Your task to perform on an android device: Clear the shopping cart on costco. Image 0: 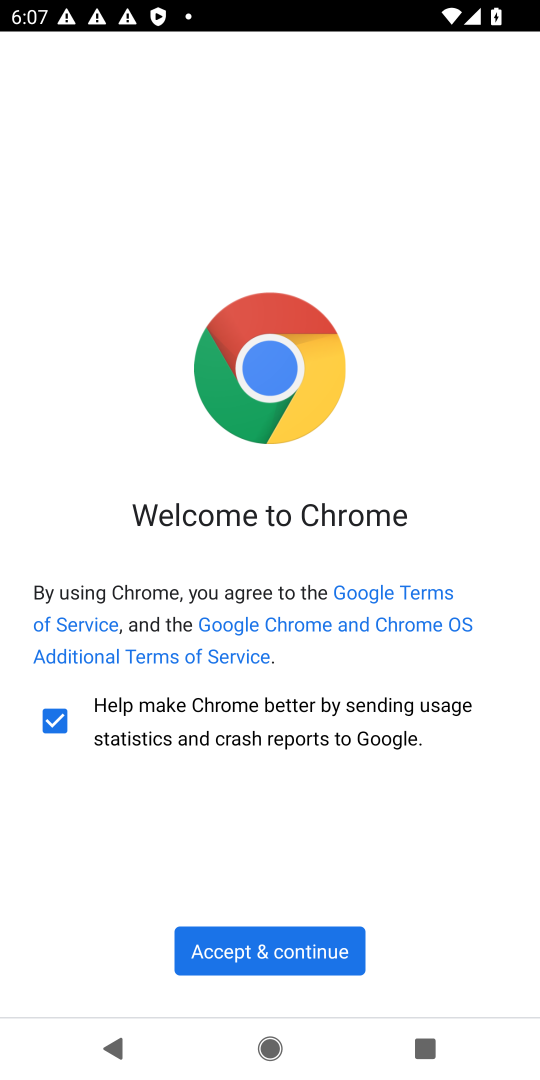
Step 0: press home button
Your task to perform on an android device: Clear the shopping cart on costco. Image 1: 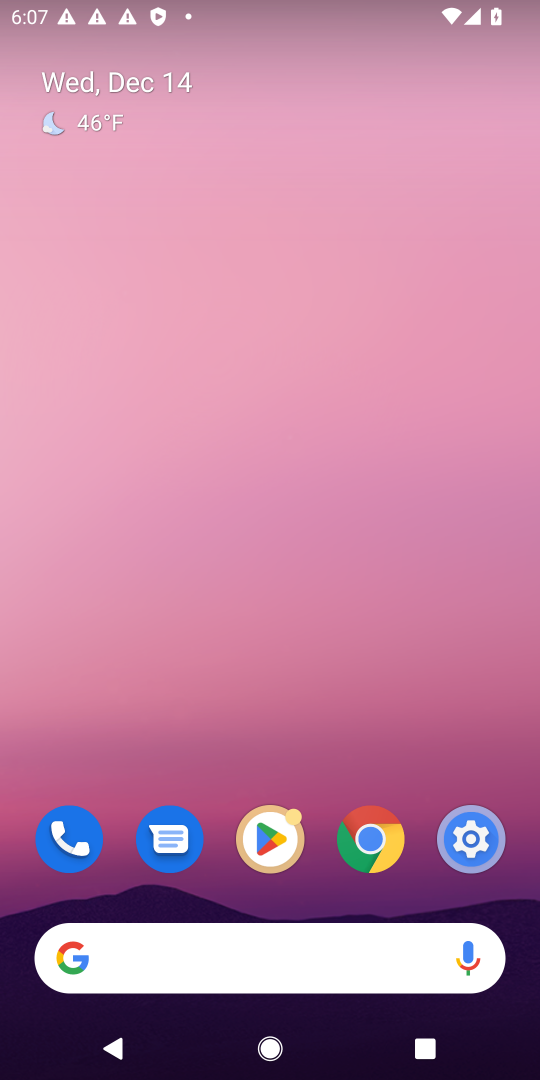
Step 1: click (345, 966)
Your task to perform on an android device: Clear the shopping cart on costco. Image 2: 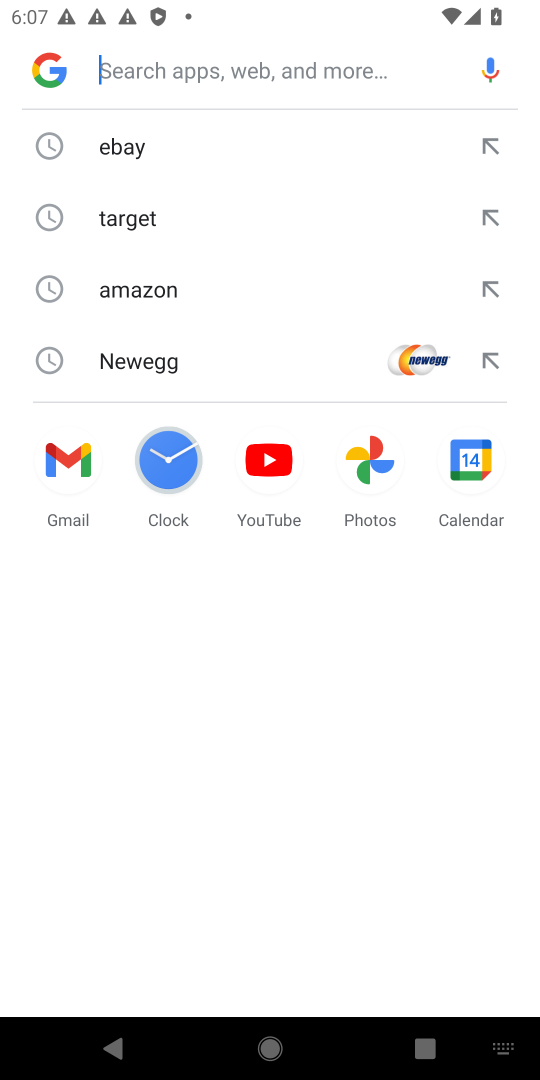
Step 2: type "costco"
Your task to perform on an android device: Clear the shopping cart on costco. Image 3: 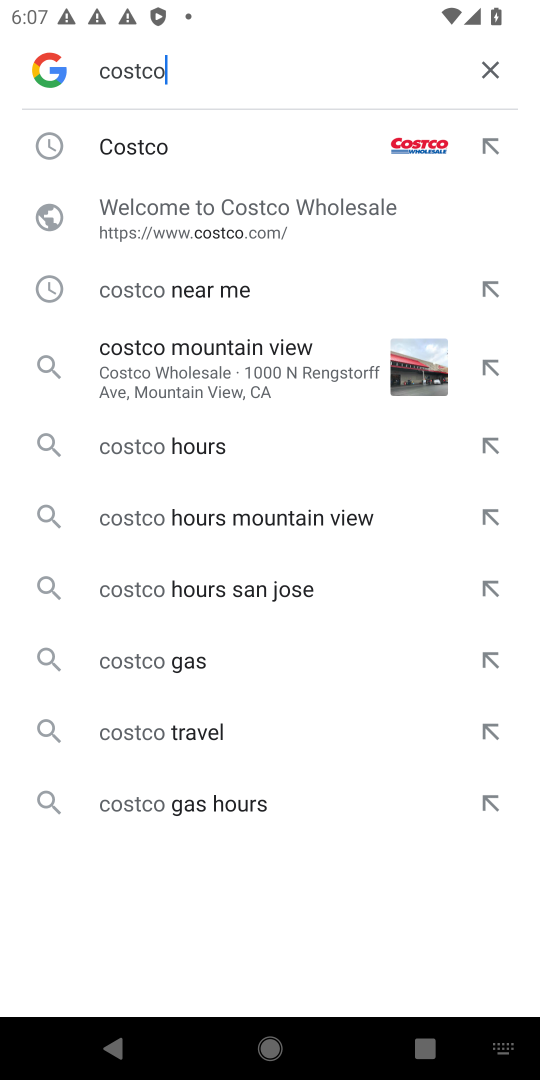
Step 3: click (158, 164)
Your task to perform on an android device: Clear the shopping cart on costco. Image 4: 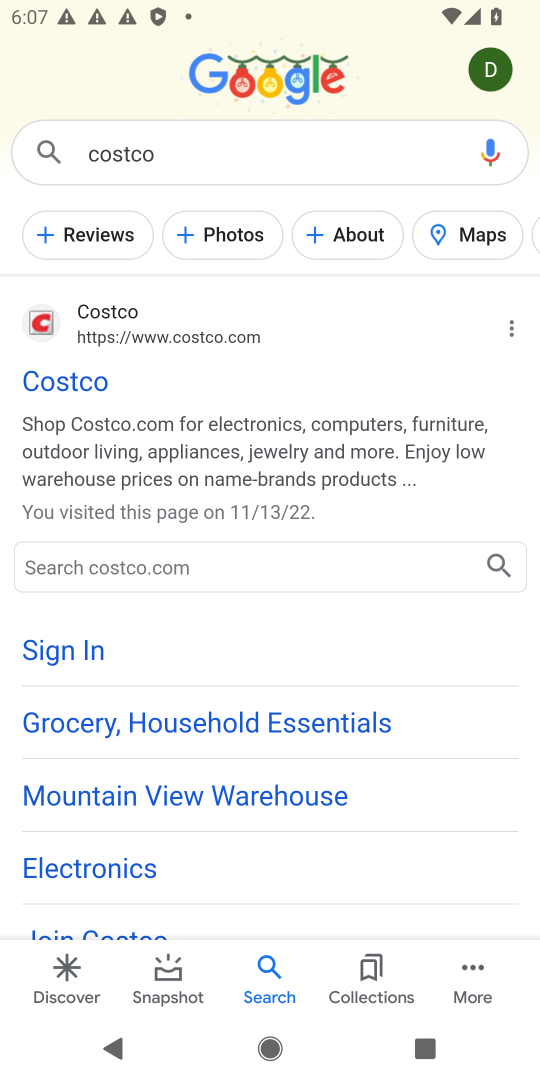
Step 4: click (44, 408)
Your task to perform on an android device: Clear the shopping cart on costco. Image 5: 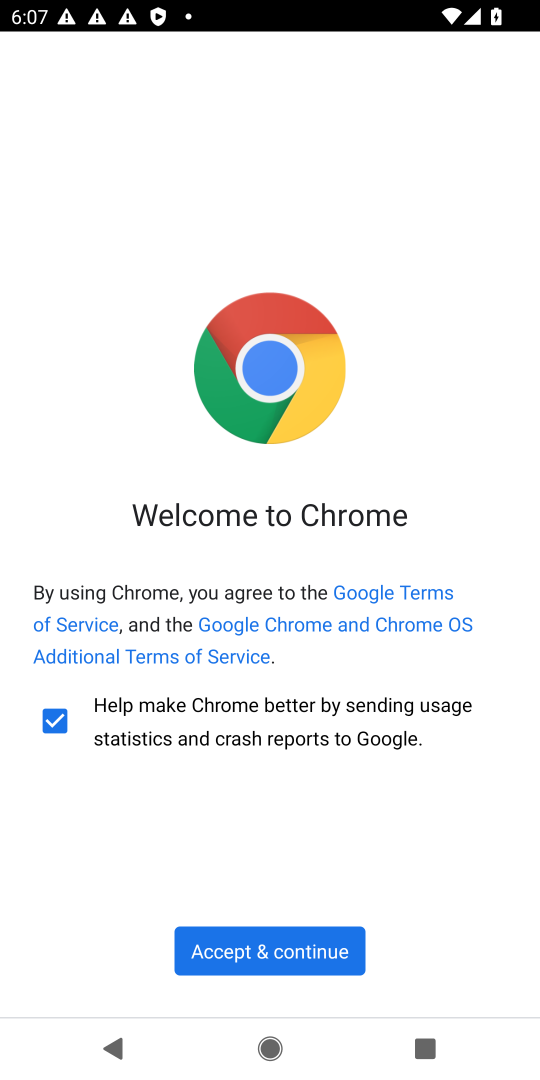
Step 5: click (273, 942)
Your task to perform on an android device: Clear the shopping cart on costco. Image 6: 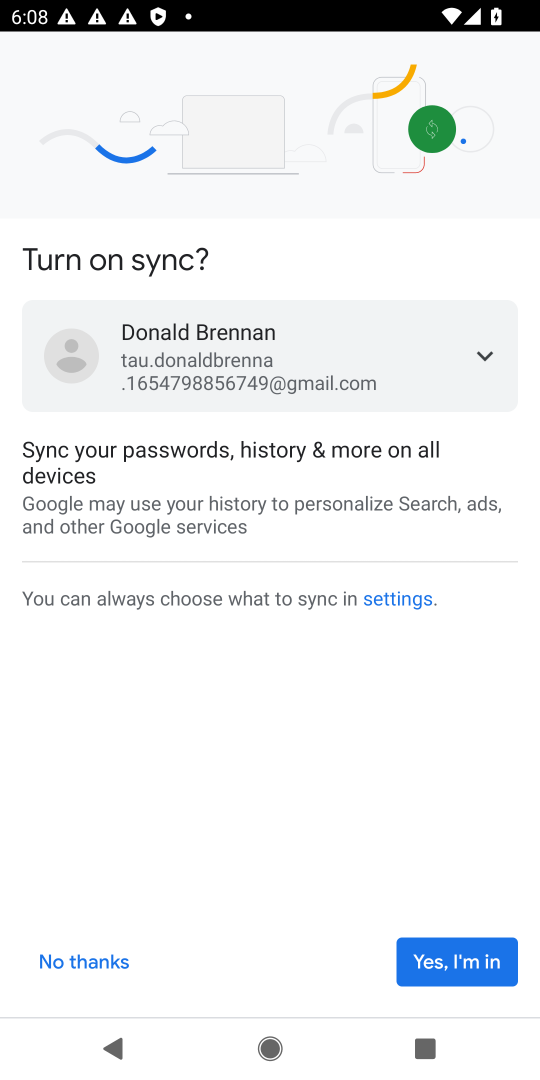
Step 6: click (420, 937)
Your task to perform on an android device: Clear the shopping cart on costco. Image 7: 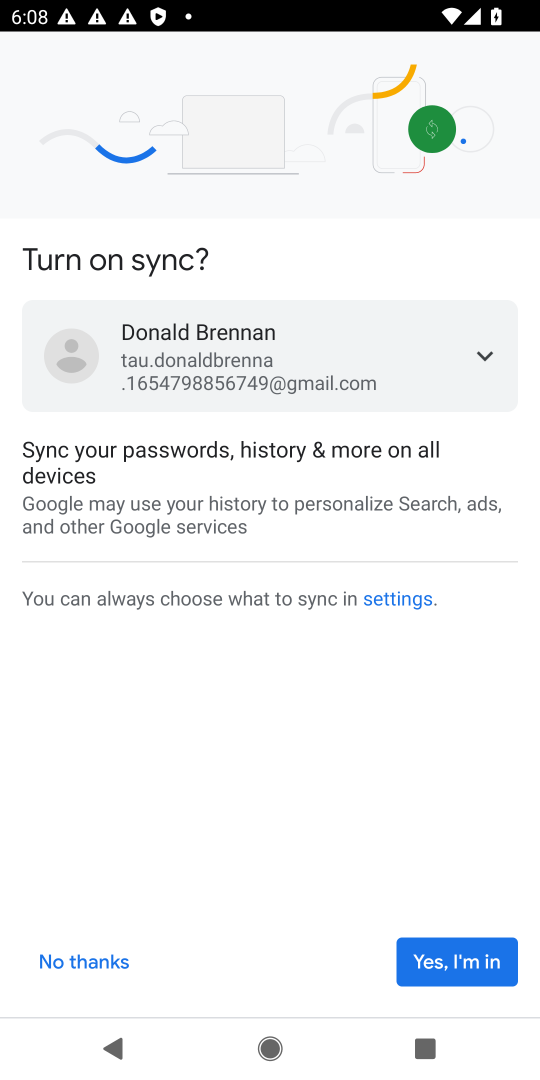
Step 7: click (420, 937)
Your task to perform on an android device: Clear the shopping cart on costco. Image 8: 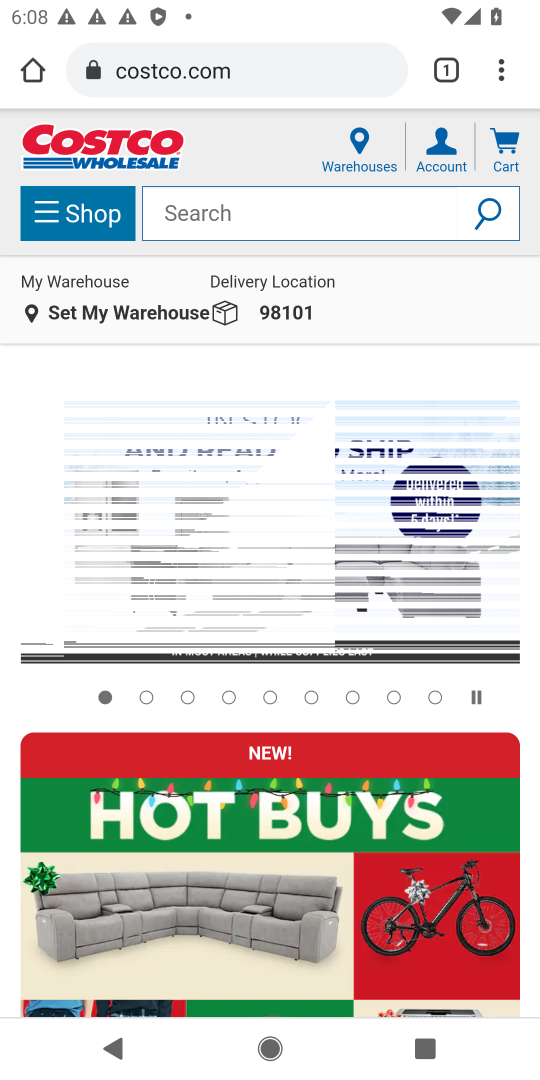
Step 8: click (192, 222)
Your task to perform on an android device: Clear the shopping cart on costco. Image 9: 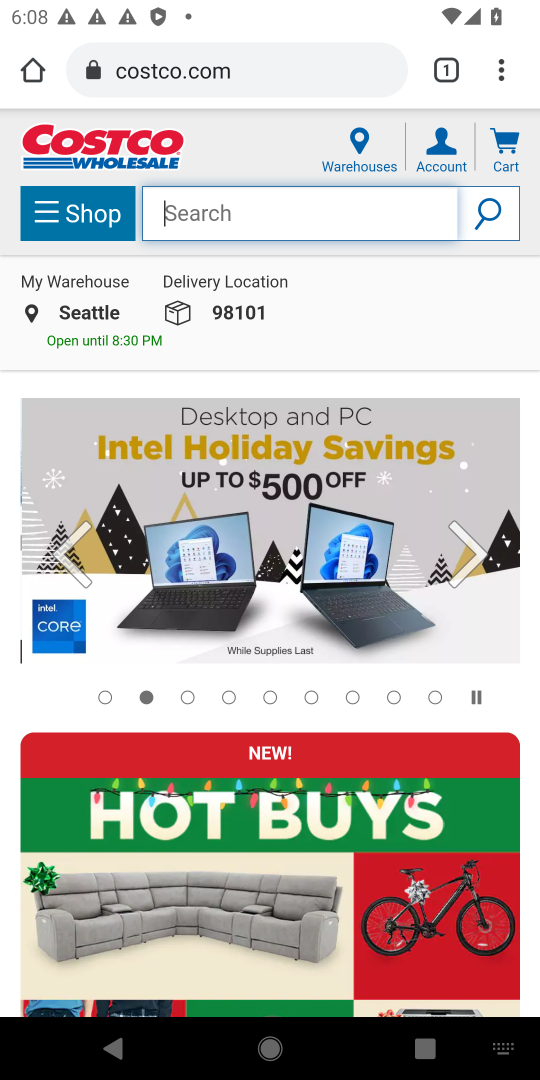
Step 9: click (488, 160)
Your task to perform on an android device: Clear the shopping cart on costco. Image 10: 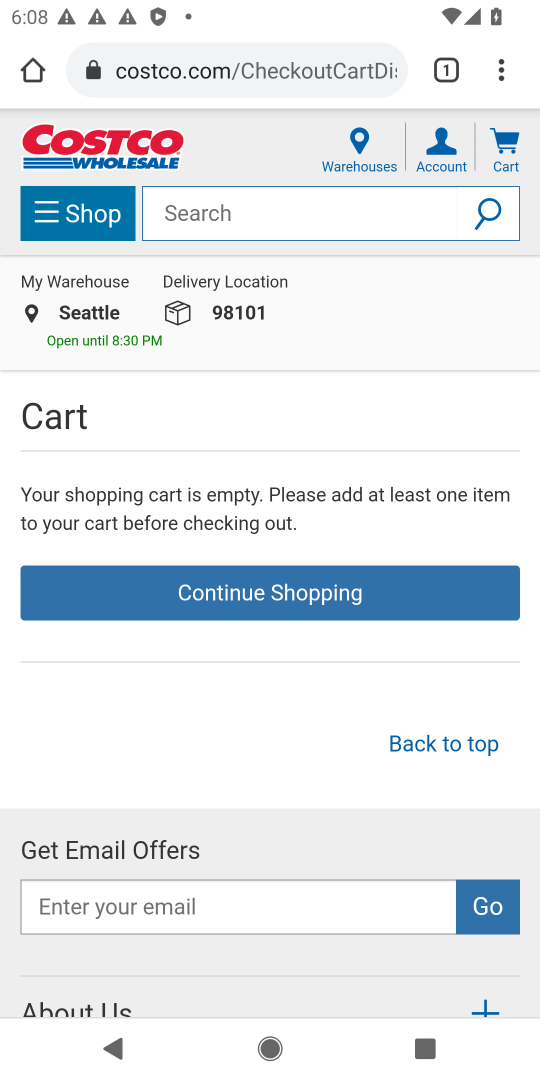
Step 10: task complete